Your task to perform on an android device: turn off picture-in-picture Image 0: 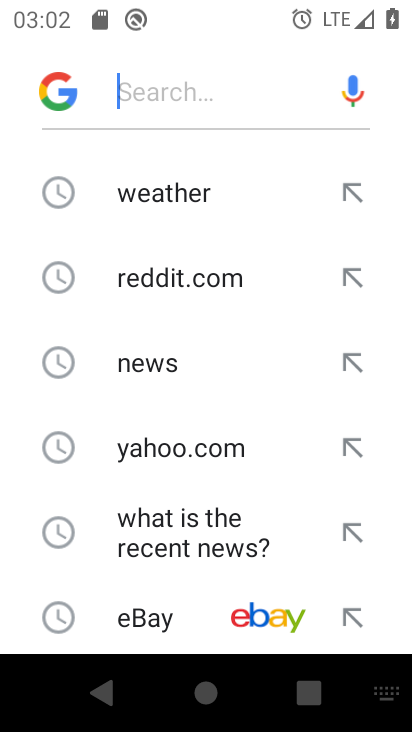
Step 0: press home button
Your task to perform on an android device: turn off picture-in-picture Image 1: 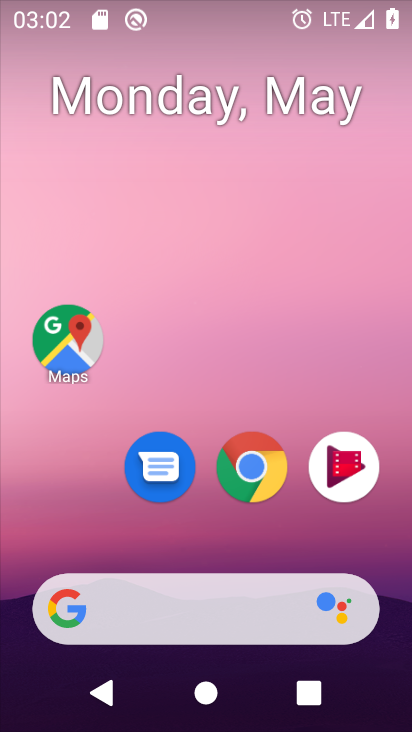
Step 1: drag from (245, 460) to (245, 119)
Your task to perform on an android device: turn off picture-in-picture Image 2: 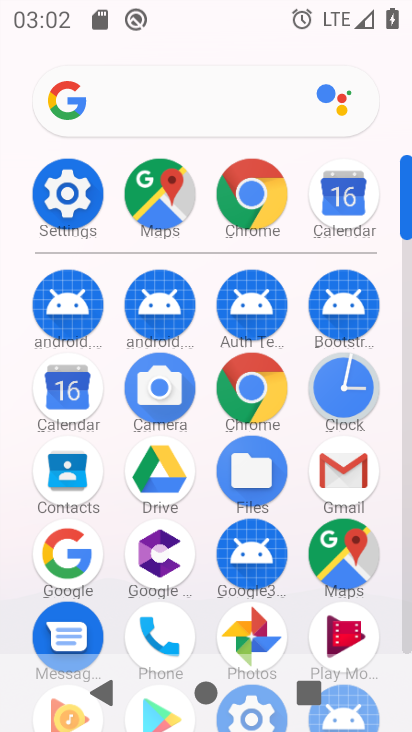
Step 2: click (59, 162)
Your task to perform on an android device: turn off picture-in-picture Image 3: 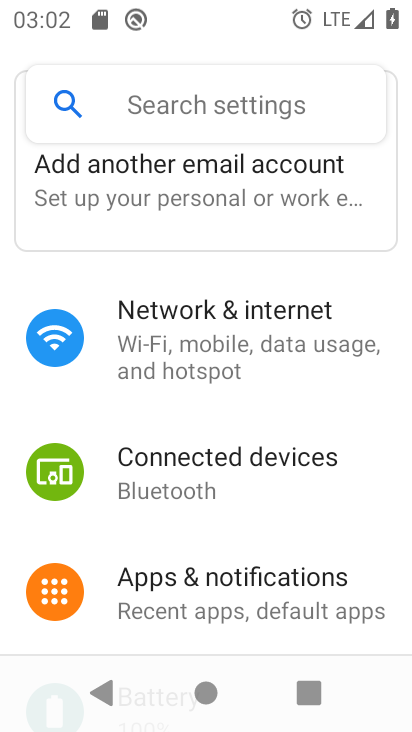
Step 3: click (221, 609)
Your task to perform on an android device: turn off picture-in-picture Image 4: 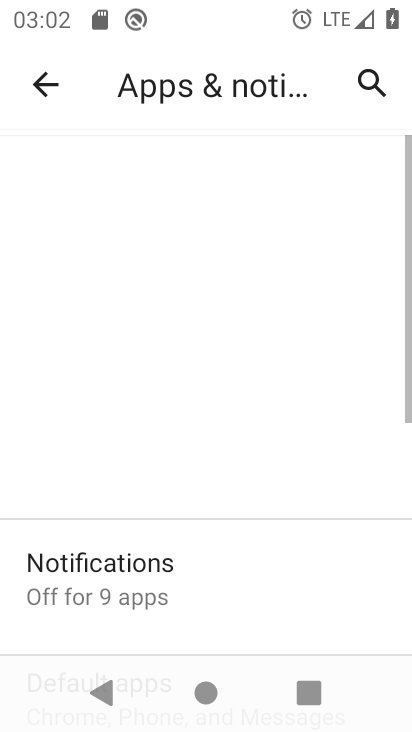
Step 4: drag from (167, 543) to (198, 116)
Your task to perform on an android device: turn off picture-in-picture Image 5: 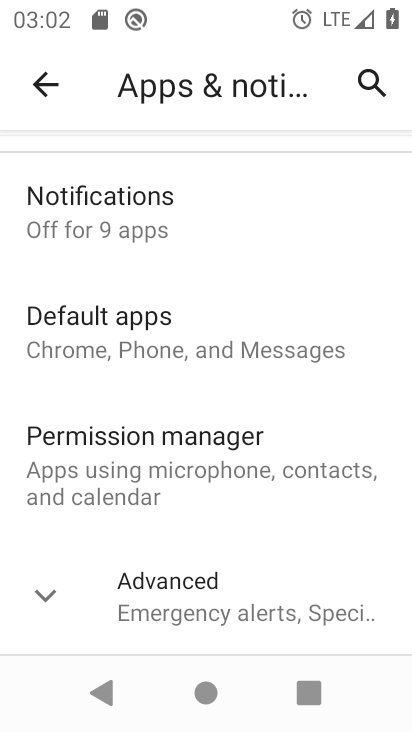
Step 5: drag from (186, 568) to (265, 299)
Your task to perform on an android device: turn off picture-in-picture Image 6: 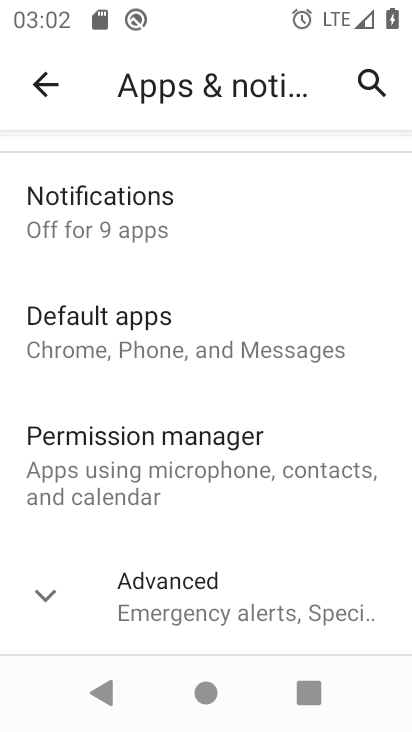
Step 6: click (209, 604)
Your task to perform on an android device: turn off picture-in-picture Image 7: 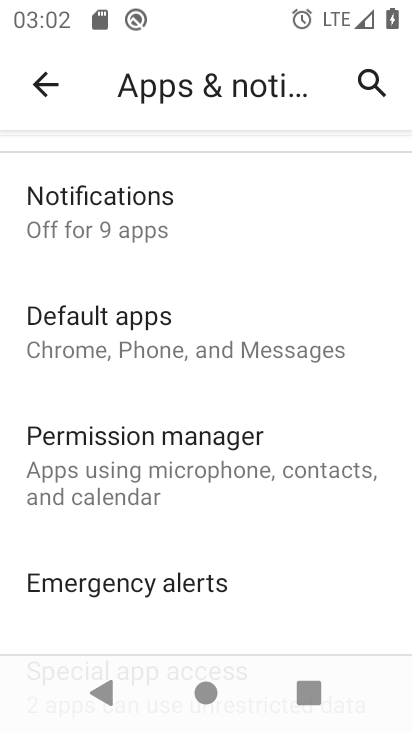
Step 7: drag from (215, 558) to (272, 196)
Your task to perform on an android device: turn off picture-in-picture Image 8: 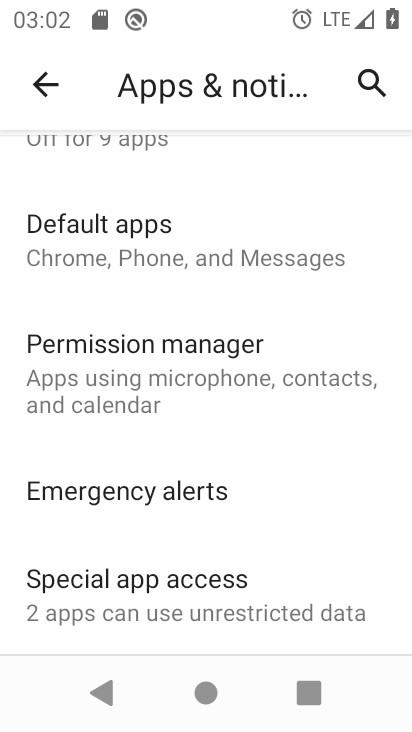
Step 8: click (183, 623)
Your task to perform on an android device: turn off picture-in-picture Image 9: 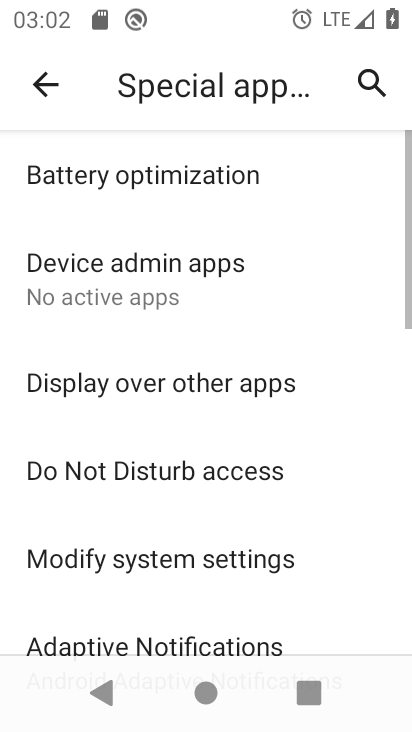
Step 9: drag from (193, 586) to (262, 274)
Your task to perform on an android device: turn off picture-in-picture Image 10: 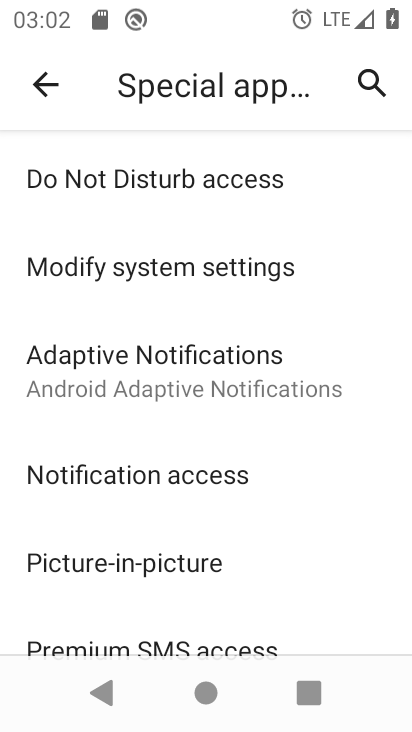
Step 10: click (128, 563)
Your task to perform on an android device: turn off picture-in-picture Image 11: 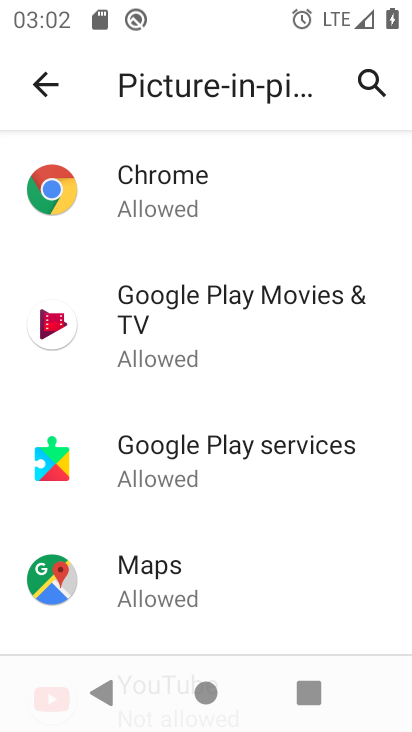
Step 11: click (197, 292)
Your task to perform on an android device: turn off picture-in-picture Image 12: 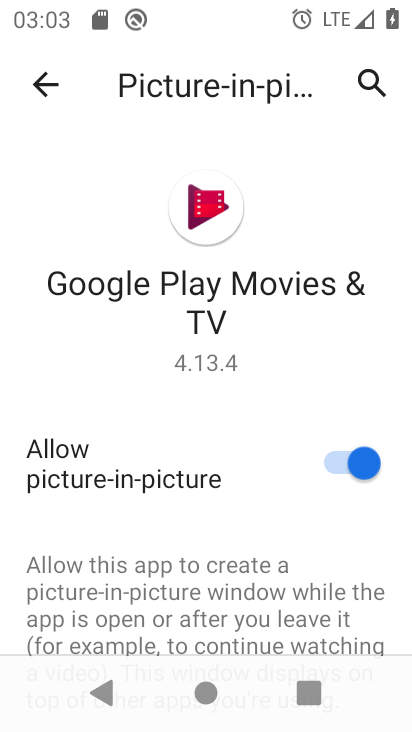
Step 12: click (360, 475)
Your task to perform on an android device: turn off picture-in-picture Image 13: 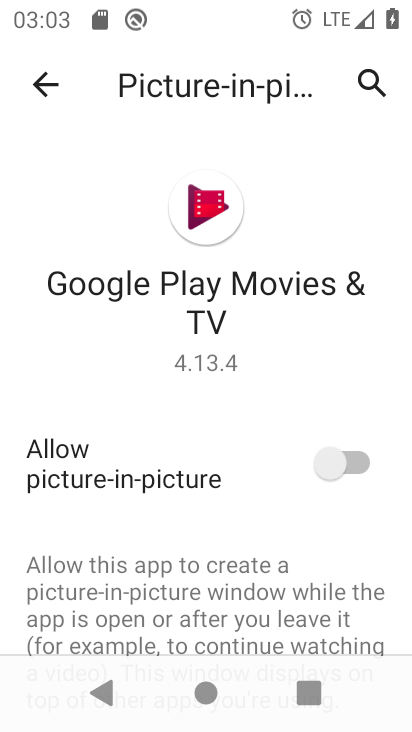
Step 13: task complete